Your task to perform on an android device: Check the weather Image 0: 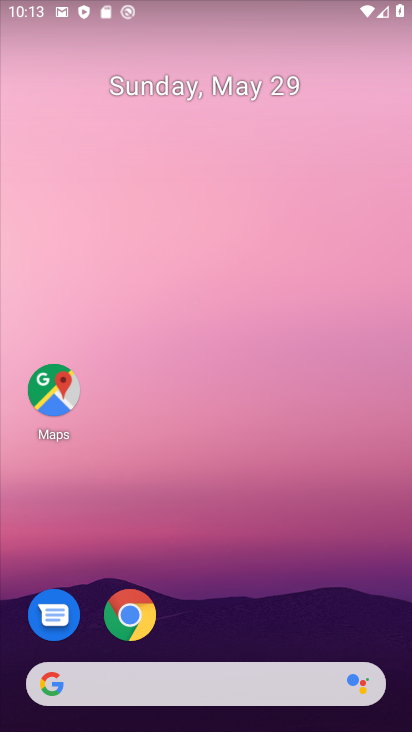
Step 0: click (198, 682)
Your task to perform on an android device: Check the weather Image 1: 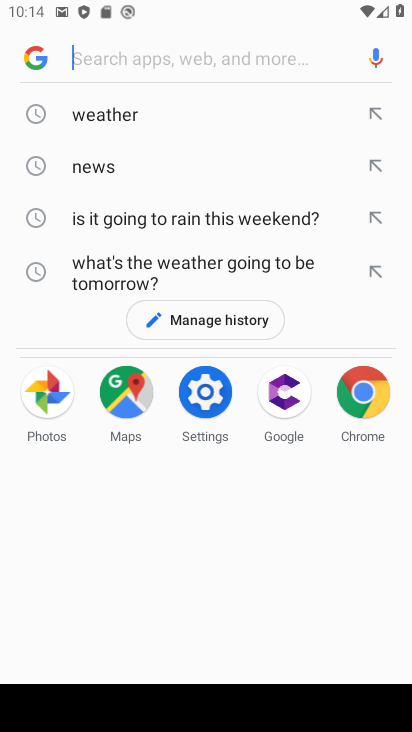
Step 1: click (134, 114)
Your task to perform on an android device: Check the weather Image 2: 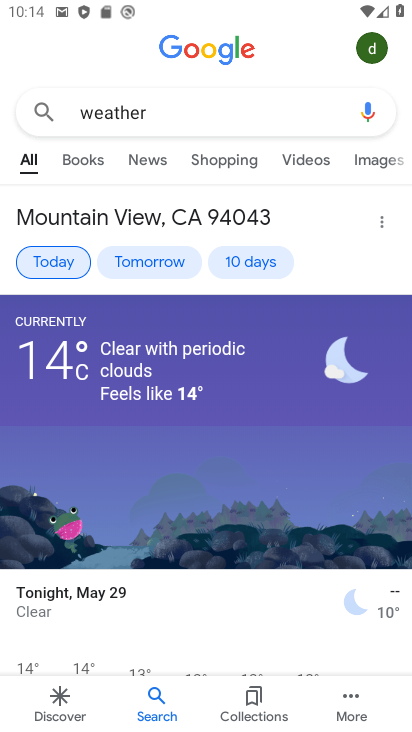
Step 2: task complete